Your task to perform on an android device: Open the web browser Image 0: 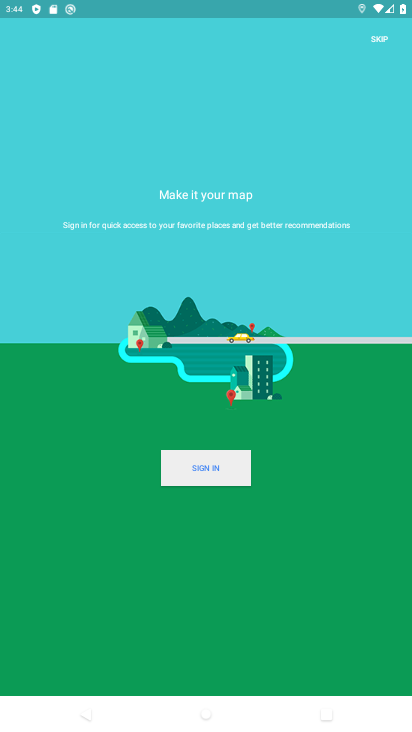
Step 0: task impossible